Your task to perform on an android device: see creations saved in the google photos Image 0: 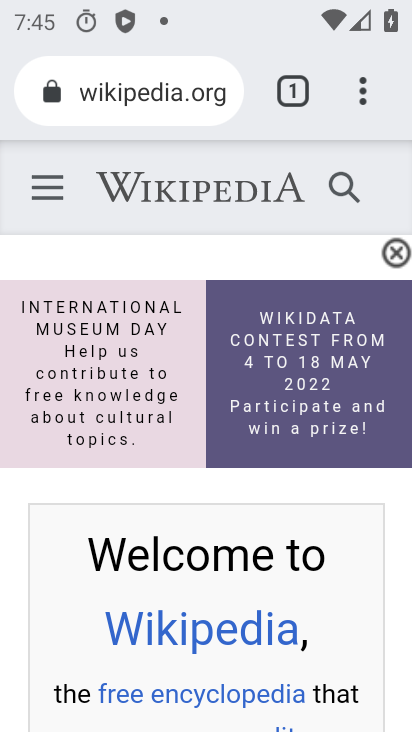
Step 0: press home button
Your task to perform on an android device: see creations saved in the google photos Image 1: 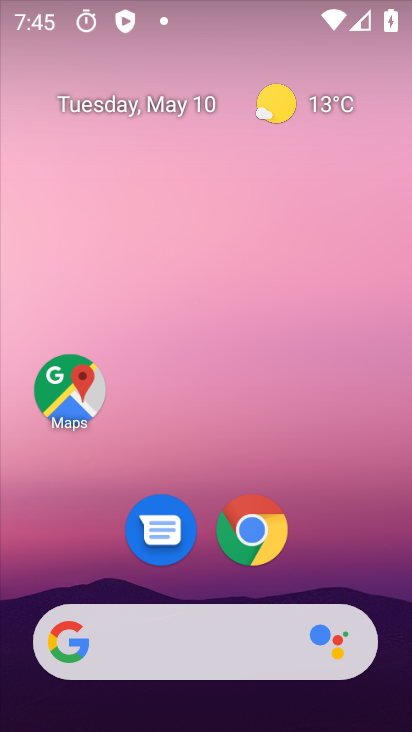
Step 1: drag from (350, 539) to (245, 180)
Your task to perform on an android device: see creations saved in the google photos Image 2: 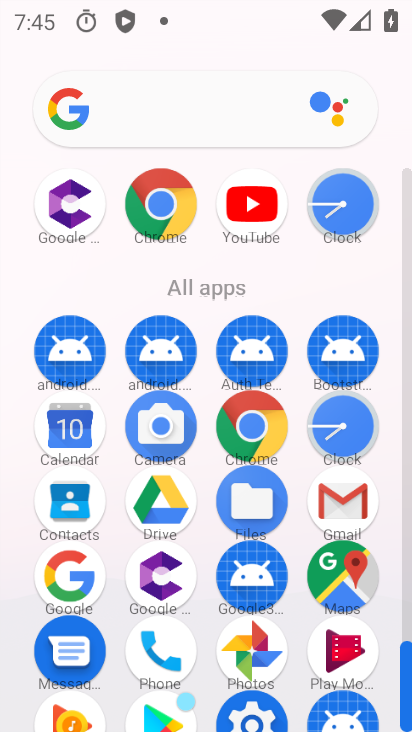
Step 2: click (278, 648)
Your task to perform on an android device: see creations saved in the google photos Image 3: 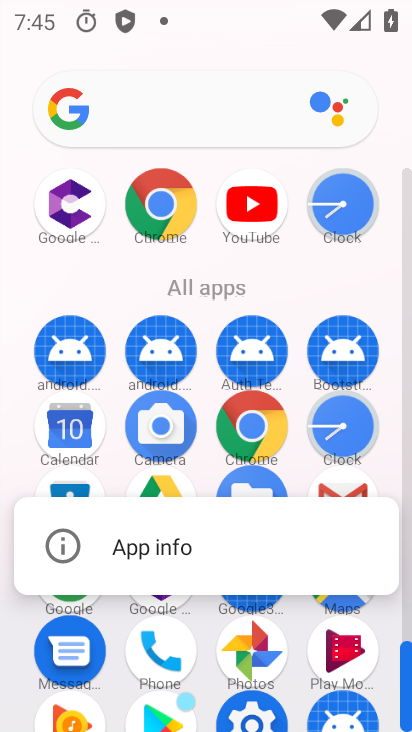
Step 3: click (262, 655)
Your task to perform on an android device: see creations saved in the google photos Image 4: 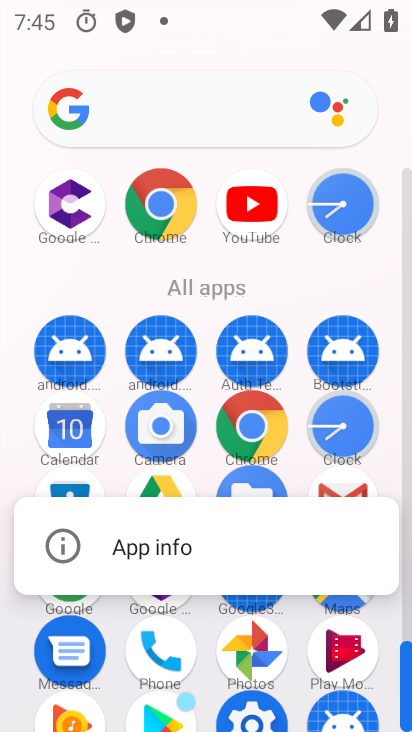
Step 4: click (255, 646)
Your task to perform on an android device: see creations saved in the google photos Image 5: 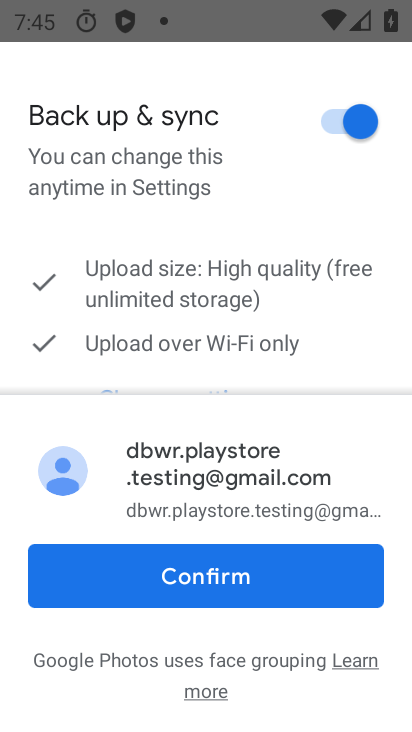
Step 5: click (252, 592)
Your task to perform on an android device: see creations saved in the google photos Image 6: 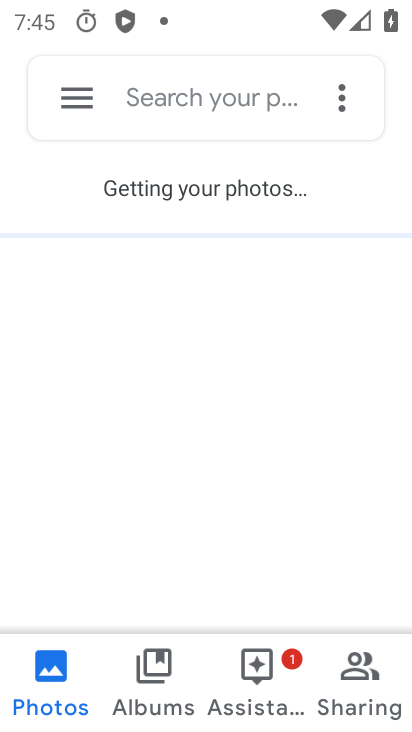
Step 6: click (177, 669)
Your task to perform on an android device: see creations saved in the google photos Image 7: 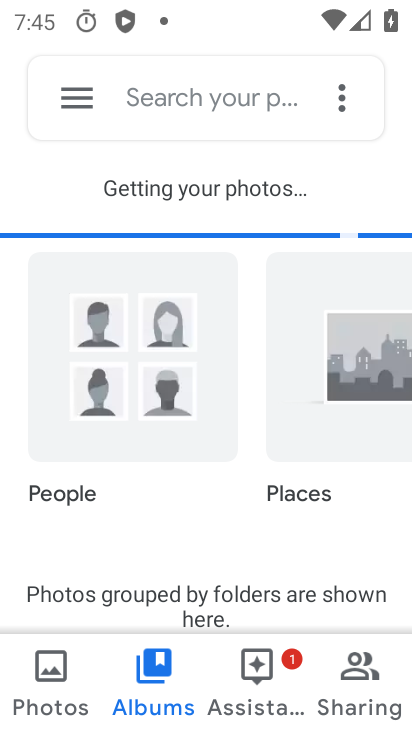
Step 7: drag from (347, 382) to (28, 377)
Your task to perform on an android device: see creations saved in the google photos Image 8: 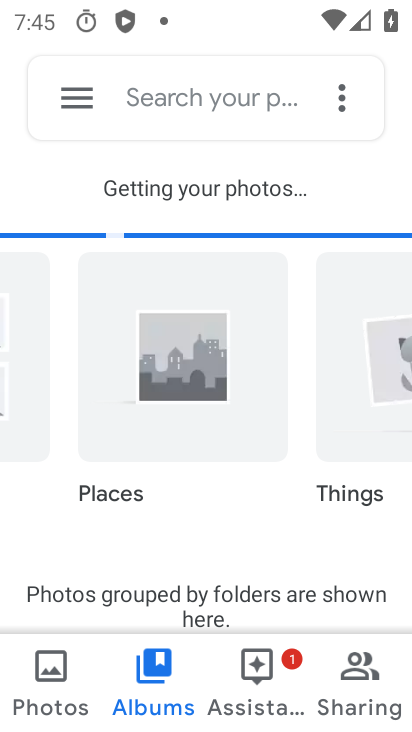
Step 8: click (243, 684)
Your task to perform on an android device: see creations saved in the google photos Image 9: 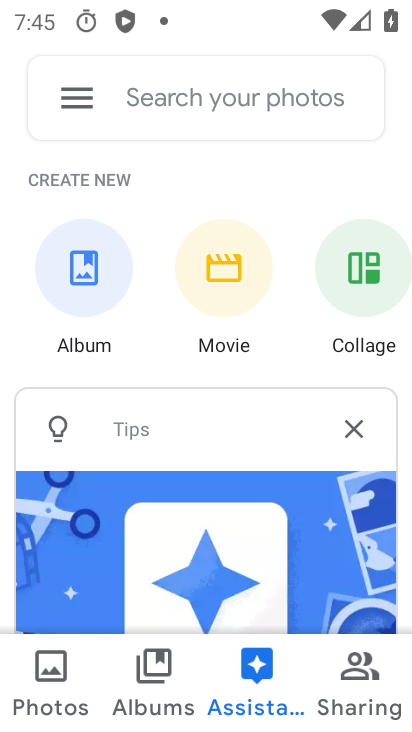
Step 9: drag from (366, 317) to (105, 265)
Your task to perform on an android device: see creations saved in the google photos Image 10: 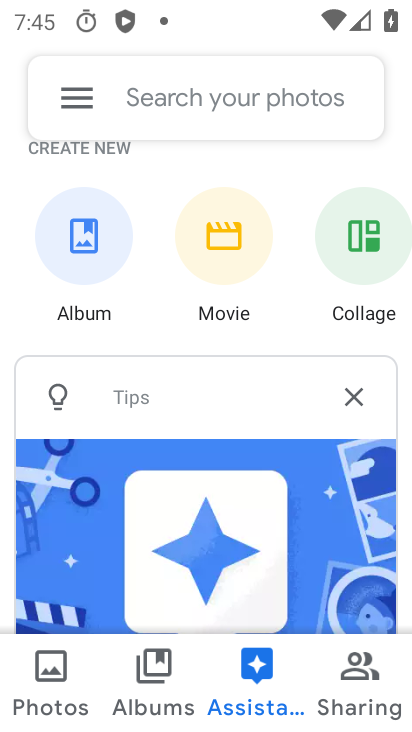
Step 10: drag from (368, 224) to (71, 205)
Your task to perform on an android device: see creations saved in the google photos Image 11: 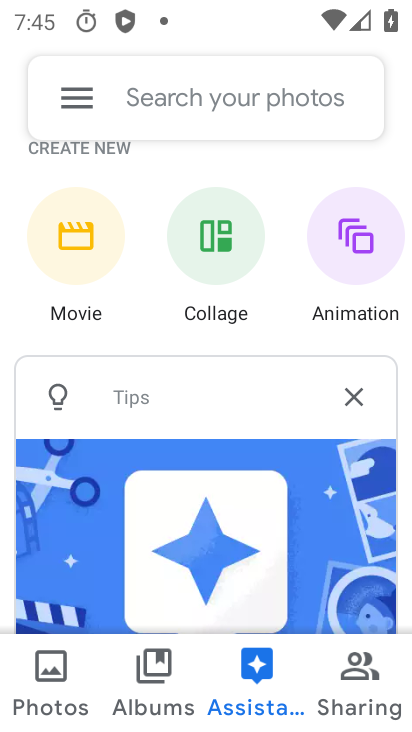
Step 11: drag from (372, 240) to (23, 231)
Your task to perform on an android device: see creations saved in the google photos Image 12: 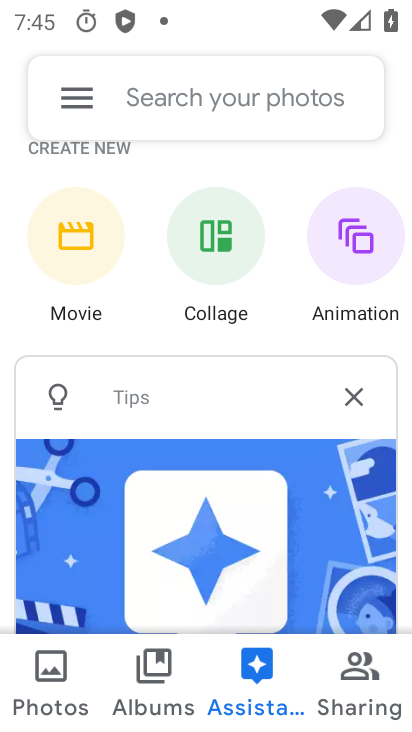
Step 12: drag from (317, 245) to (69, 244)
Your task to perform on an android device: see creations saved in the google photos Image 13: 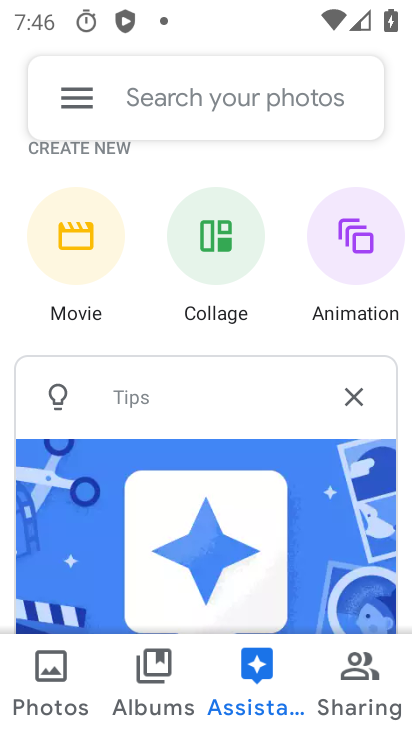
Step 13: click (375, 694)
Your task to perform on an android device: see creations saved in the google photos Image 14: 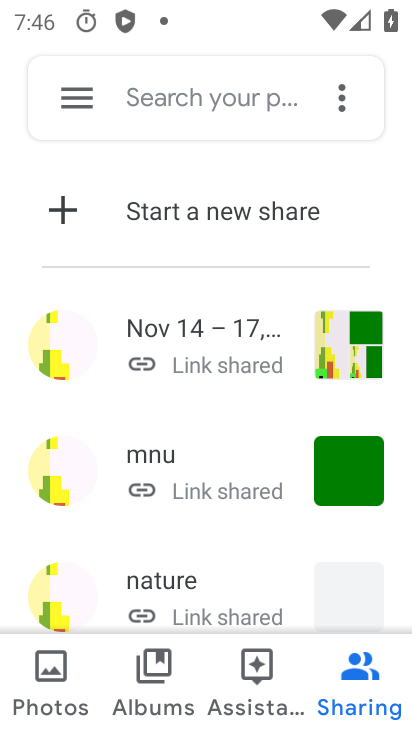
Step 14: click (51, 655)
Your task to perform on an android device: see creations saved in the google photos Image 15: 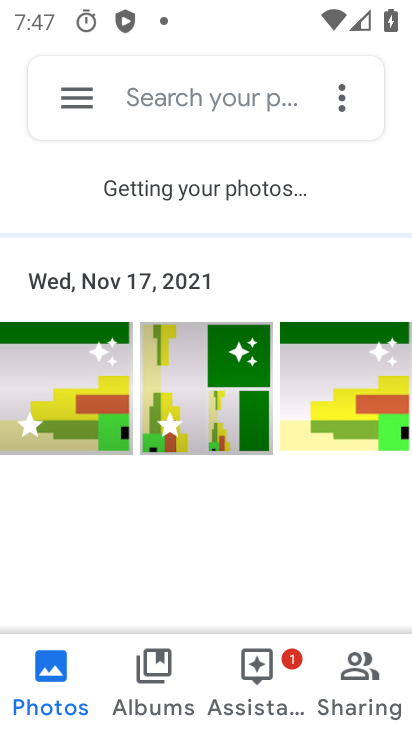
Step 15: task complete